Your task to perform on an android device: move a message to another label in the gmail app Image 0: 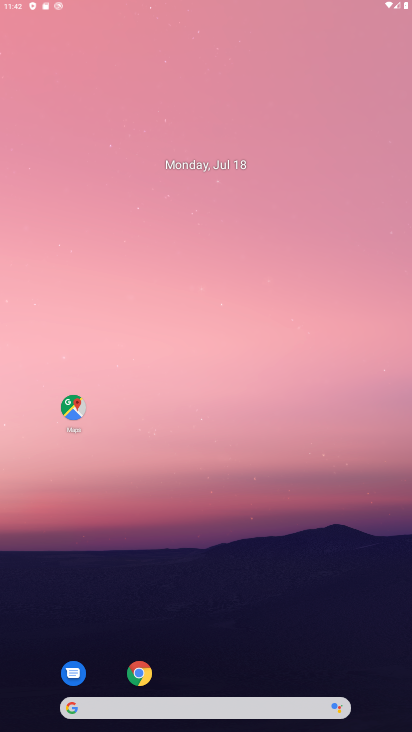
Step 0: press home button
Your task to perform on an android device: move a message to another label in the gmail app Image 1: 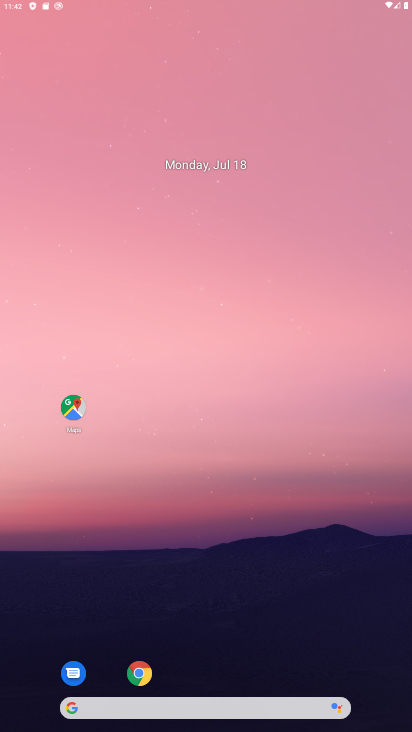
Step 1: click (218, 49)
Your task to perform on an android device: move a message to another label in the gmail app Image 2: 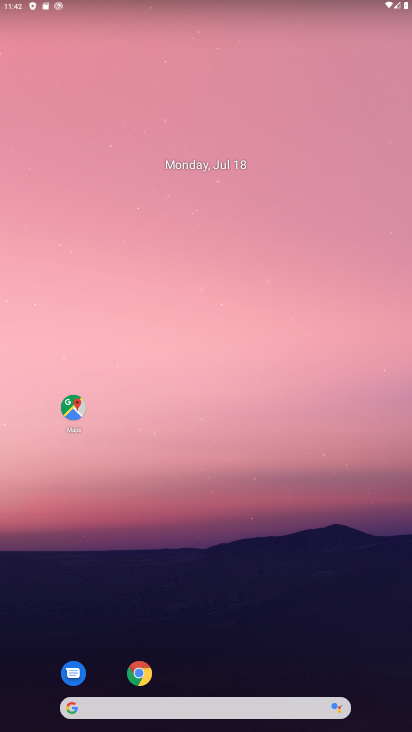
Step 2: drag from (212, 676) to (221, 0)
Your task to perform on an android device: move a message to another label in the gmail app Image 3: 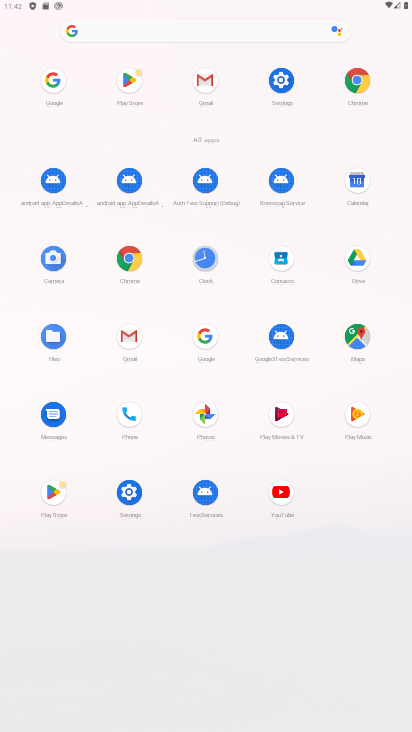
Step 3: click (130, 334)
Your task to perform on an android device: move a message to another label in the gmail app Image 4: 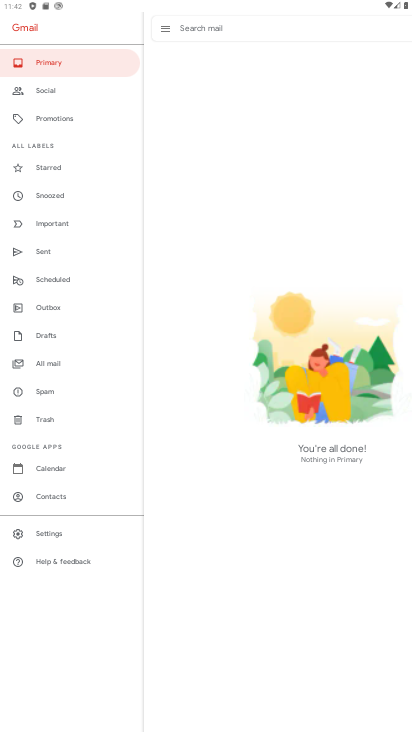
Step 4: click (75, 67)
Your task to perform on an android device: move a message to another label in the gmail app Image 5: 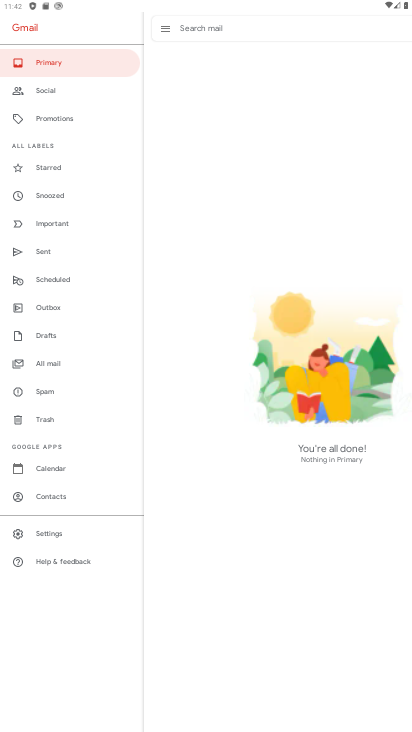
Step 5: click (163, 33)
Your task to perform on an android device: move a message to another label in the gmail app Image 6: 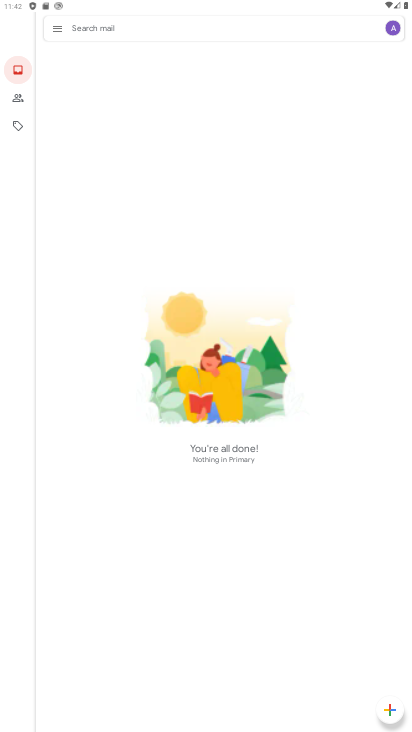
Step 6: task complete